Your task to perform on an android device: Open calendar and show me the second week of next month Image 0: 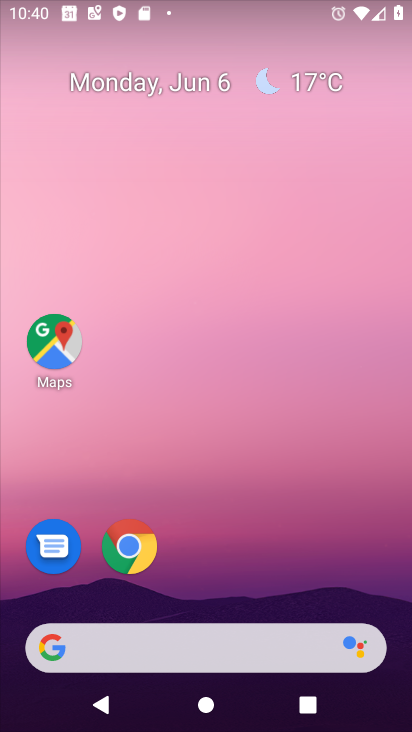
Step 0: drag from (185, 596) to (265, 6)
Your task to perform on an android device: Open calendar and show me the second week of next month Image 1: 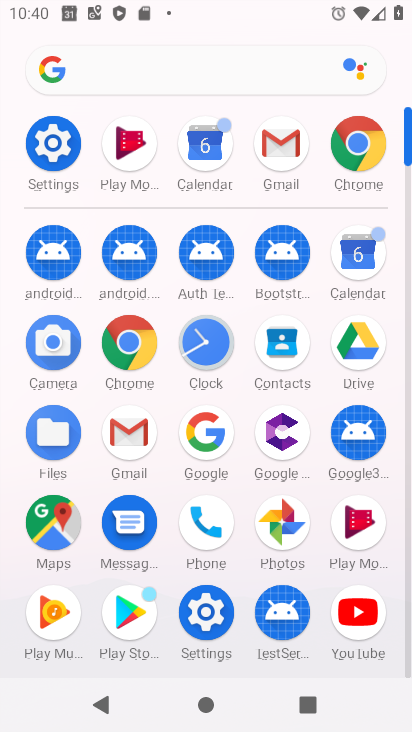
Step 1: click (350, 262)
Your task to perform on an android device: Open calendar and show me the second week of next month Image 2: 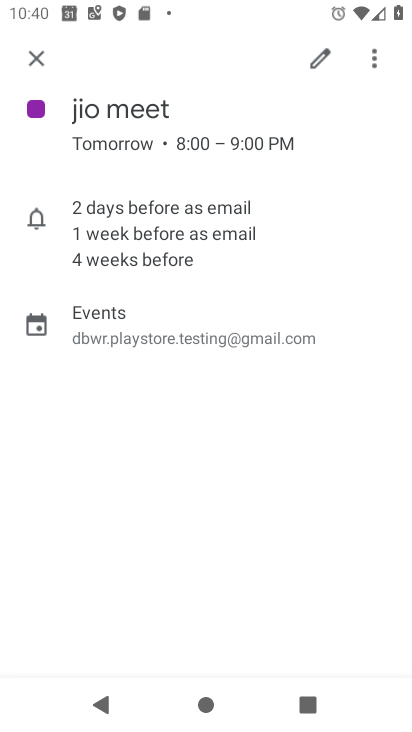
Step 2: click (25, 53)
Your task to perform on an android device: Open calendar and show me the second week of next month Image 3: 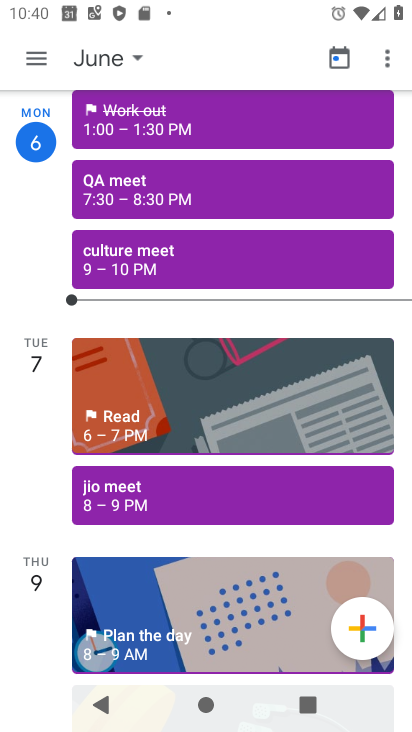
Step 3: click (38, 60)
Your task to perform on an android device: Open calendar and show me the second week of next month Image 4: 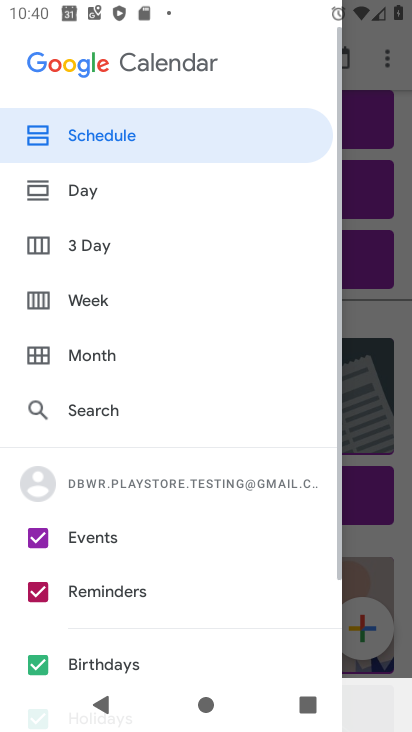
Step 4: click (88, 302)
Your task to perform on an android device: Open calendar and show me the second week of next month Image 5: 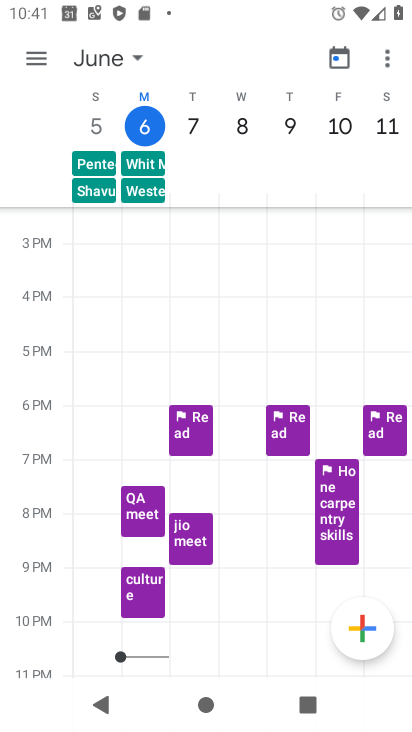
Step 5: task complete